Your task to perform on an android device: Check the news Image 0: 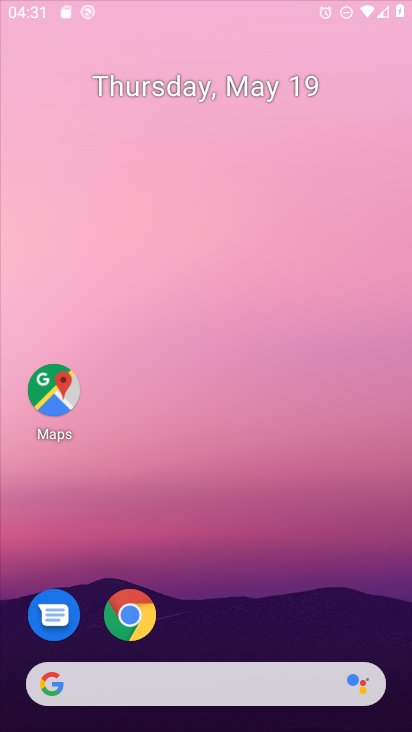
Step 0: drag from (190, 139) to (166, 66)
Your task to perform on an android device: Check the news Image 1: 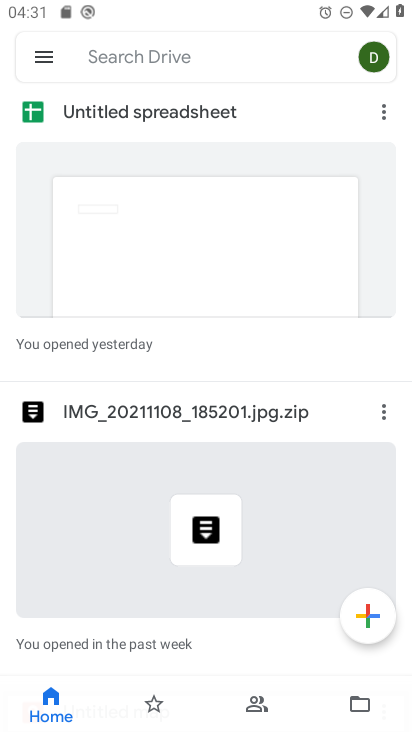
Step 1: press home button
Your task to perform on an android device: Check the news Image 2: 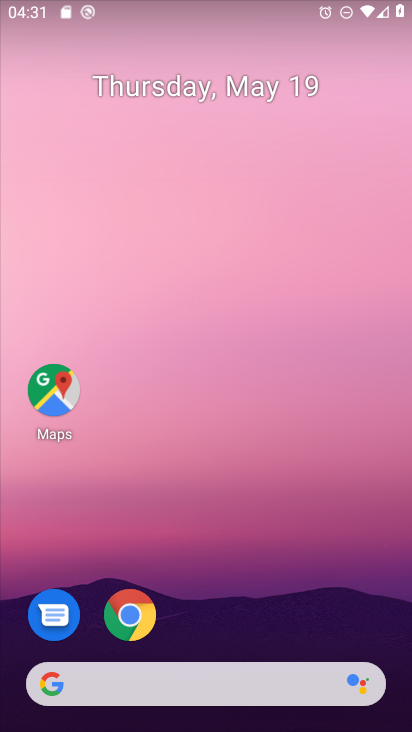
Step 2: drag from (244, 622) to (132, 38)
Your task to perform on an android device: Check the news Image 3: 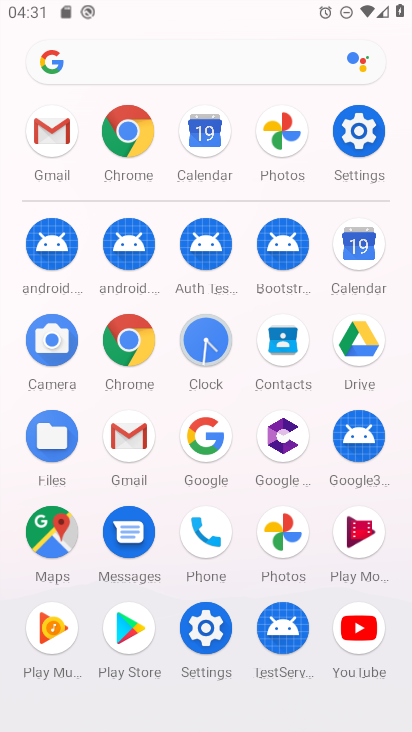
Step 3: click (148, 67)
Your task to perform on an android device: Check the news Image 4: 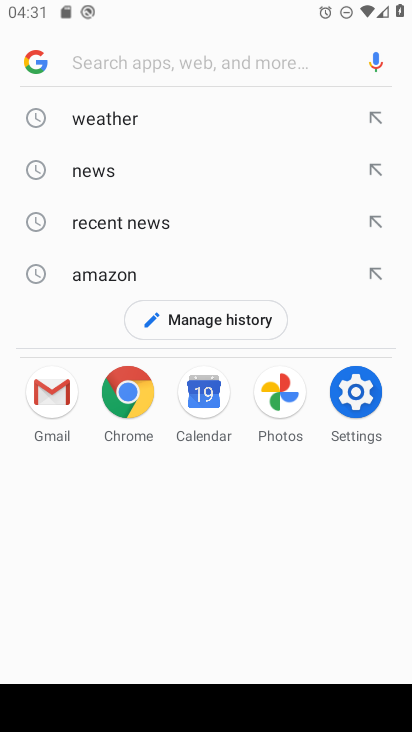
Step 4: click (151, 168)
Your task to perform on an android device: Check the news Image 5: 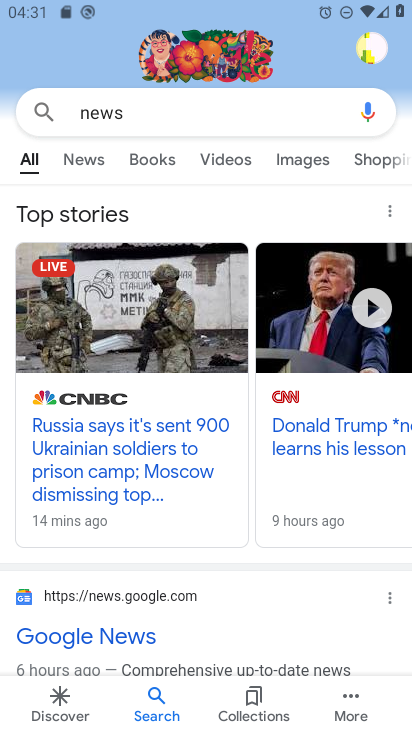
Step 5: task complete